Your task to perform on an android device: stop showing notifications on the lock screen Image 0: 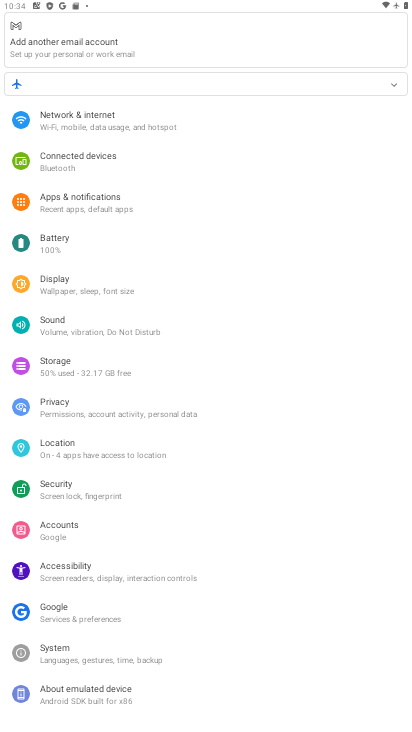
Step 0: press home button
Your task to perform on an android device: stop showing notifications on the lock screen Image 1: 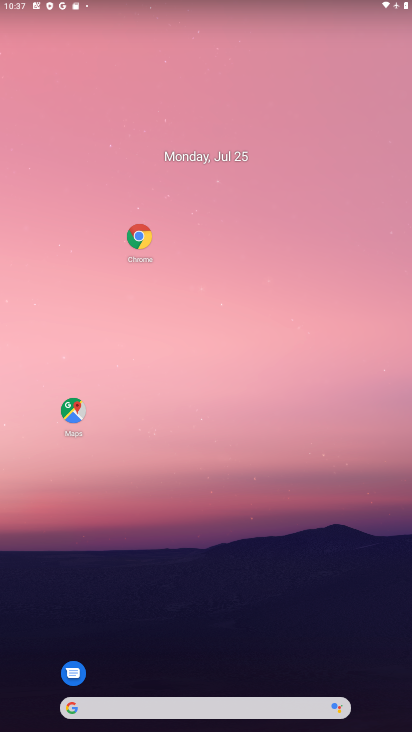
Step 1: task complete